Your task to perform on an android device: Open Yahoo.com Image 0: 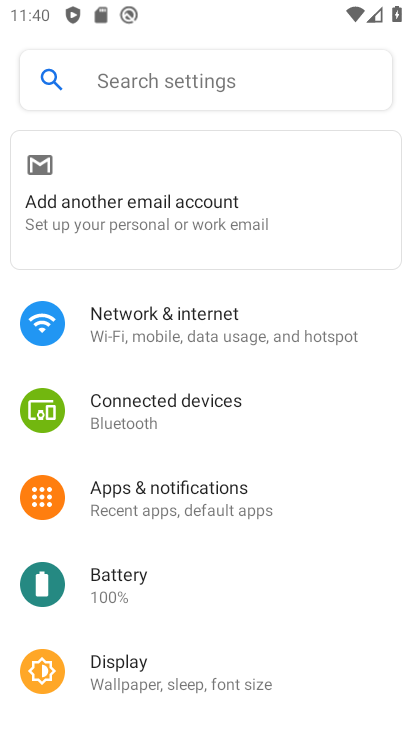
Step 0: press home button
Your task to perform on an android device: Open Yahoo.com Image 1: 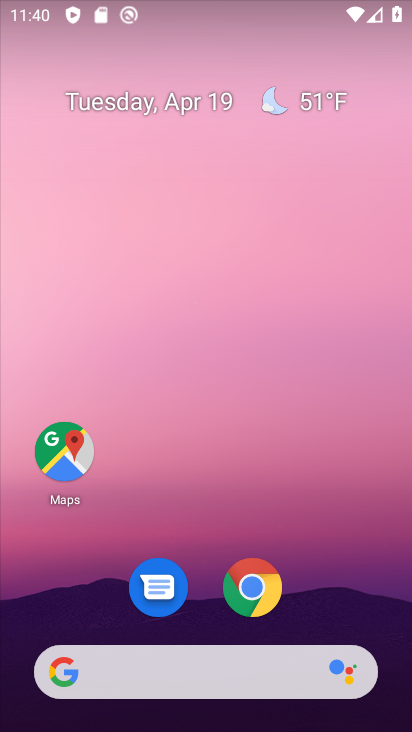
Step 1: click (199, 660)
Your task to perform on an android device: Open Yahoo.com Image 2: 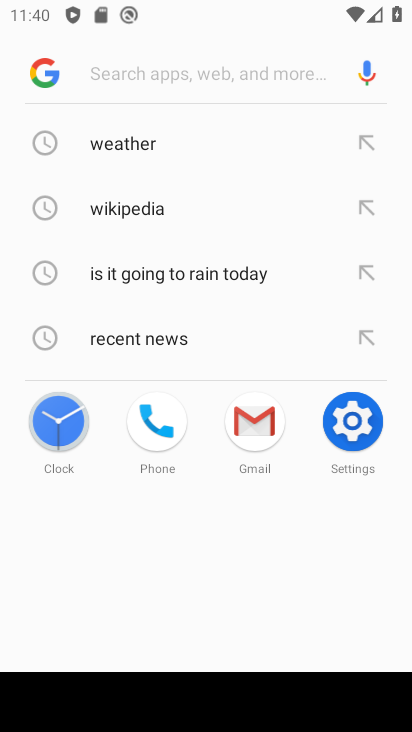
Step 2: type "Yahoo.com"
Your task to perform on an android device: Open Yahoo.com Image 3: 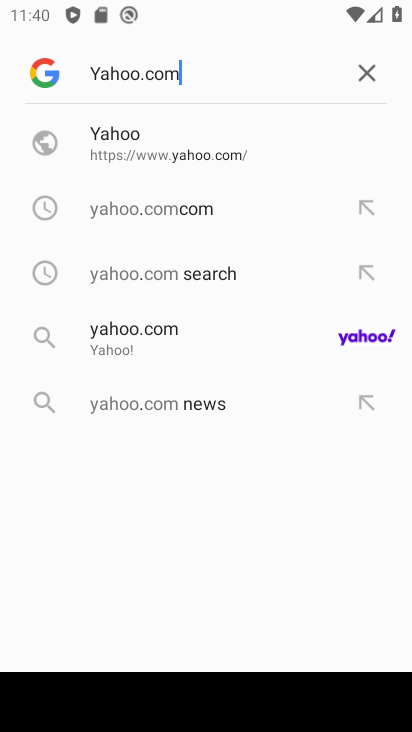
Step 3: click (226, 153)
Your task to perform on an android device: Open Yahoo.com Image 4: 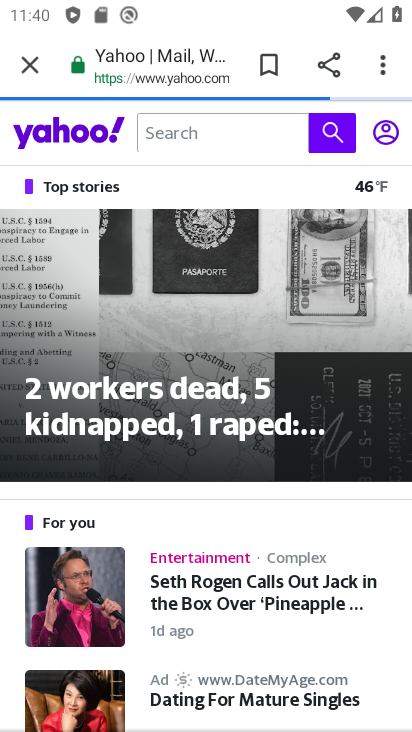
Step 4: task complete